Your task to perform on an android device: turn off airplane mode Image 0: 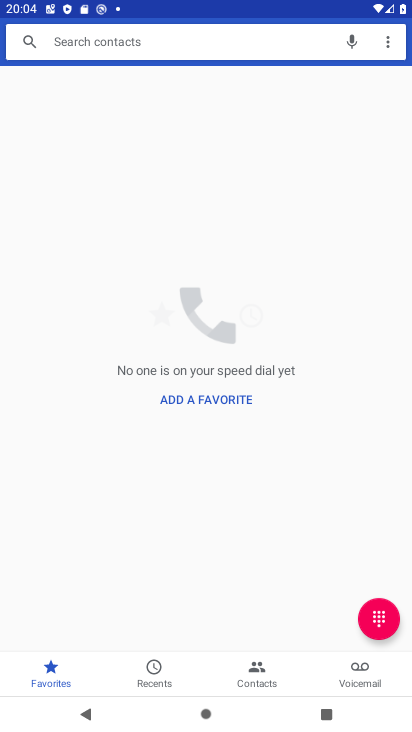
Step 0: press home button
Your task to perform on an android device: turn off airplane mode Image 1: 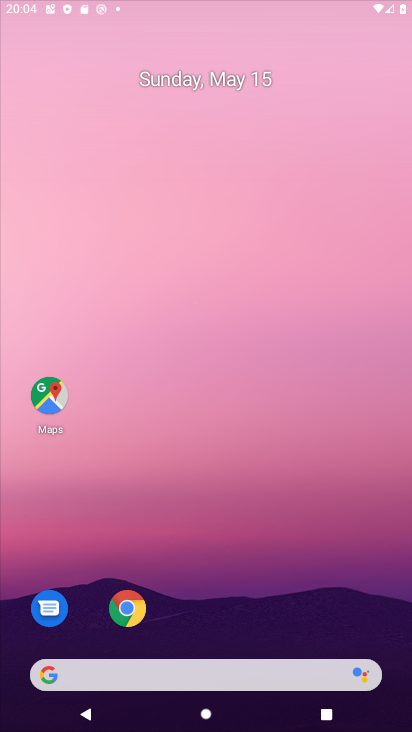
Step 1: drag from (187, 643) to (236, 114)
Your task to perform on an android device: turn off airplane mode Image 2: 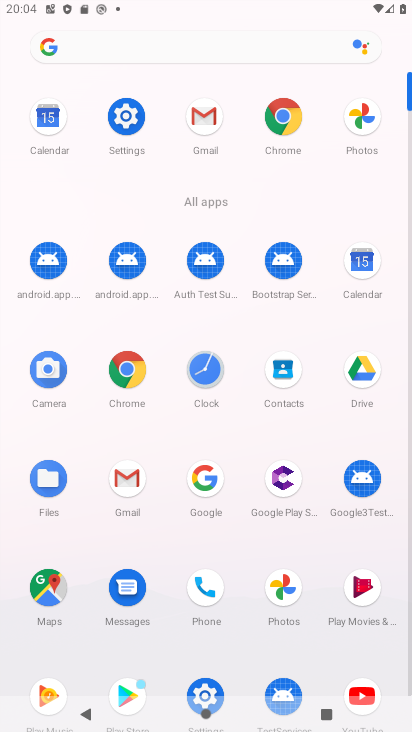
Step 2: drag from (125, 214) to (113, 86)
Your task to perform on an android device: turn off airplane mode Image 3: 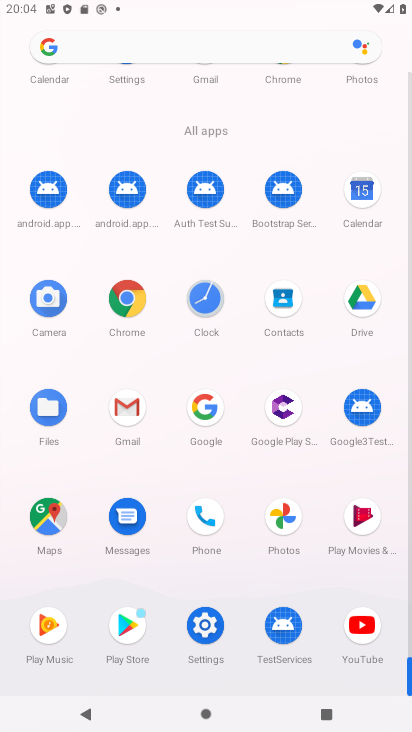
Step 3: click (124, 108)
Your task to perform on an android device: turn off airplane mode Image 4: 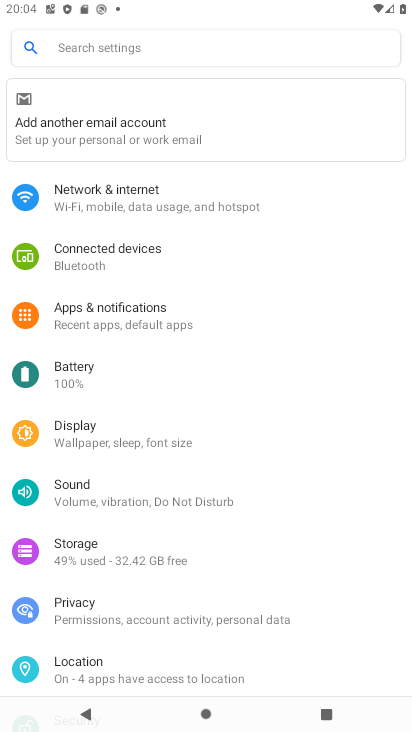
Step 4: click (99, 183)
Your task to perform on an android device: turn off airplane mode Image 5: 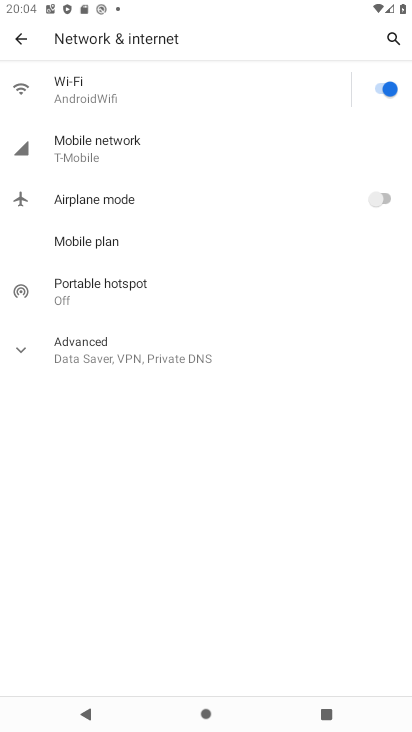
Step 5: task complete